Your task to perform on an android device: Open Google Image 0: 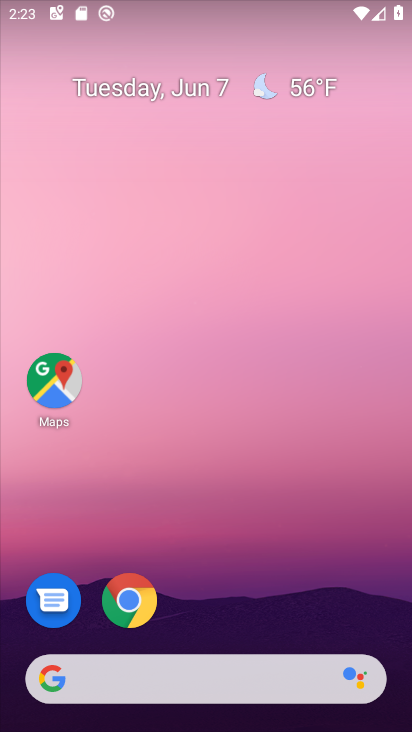
Step 0: click (45, 681)
Your task to perform on an android device: Open Google Image 1: 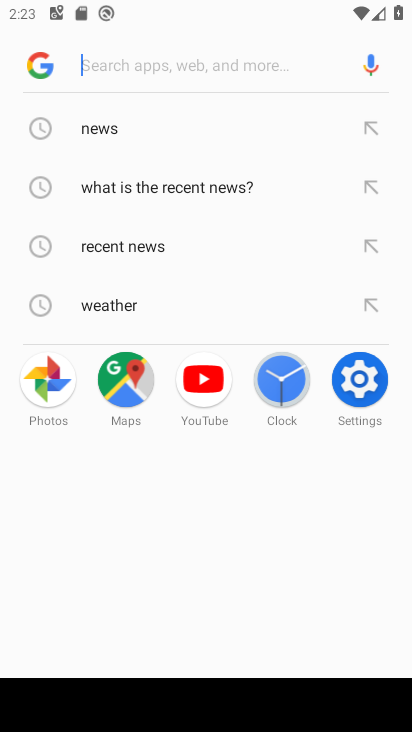
Step 1: click (39, 69)
Your task to perform on an android device: Open Google Image 2: 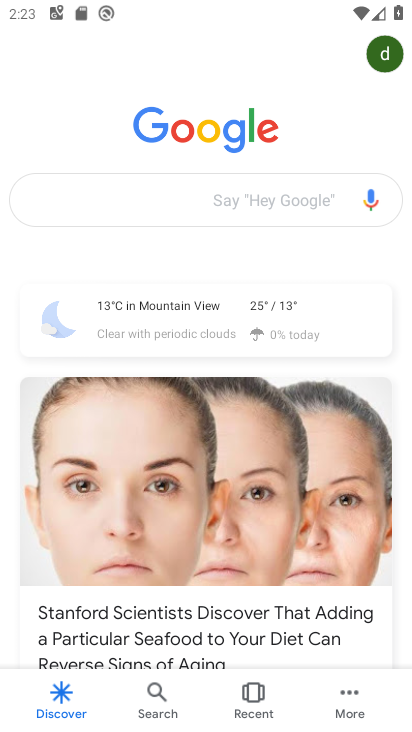
Step 2: task complete